Your task to perform on an android device: check battery use Image 0: 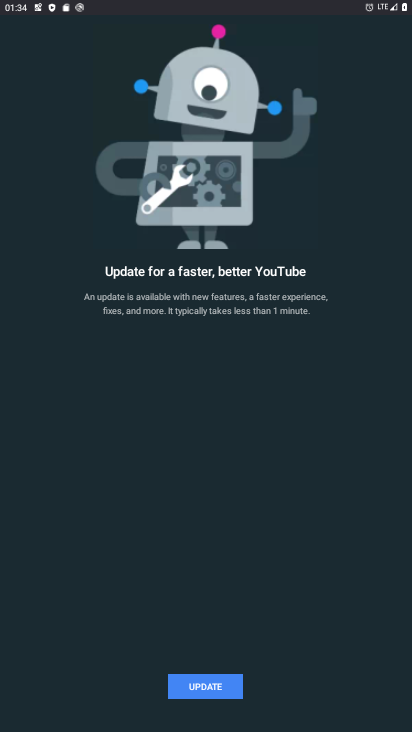
Step 0: press home button
Your task to perform on an android device: check battery use Image 1: 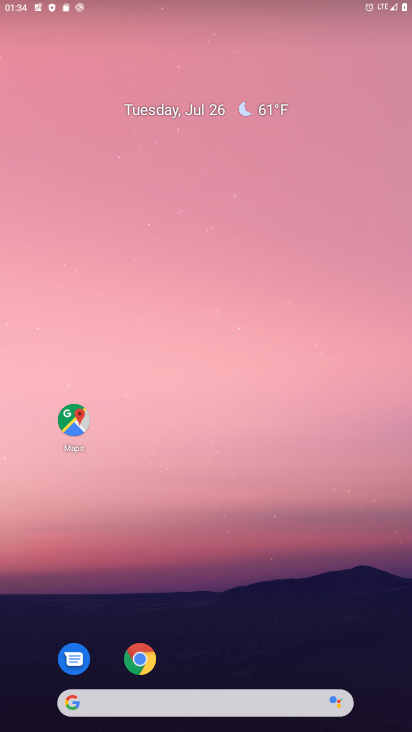
Step 1: drag from (311, 626) to (175, 23)
Your task to perform on an android device: check battery use Image 2: 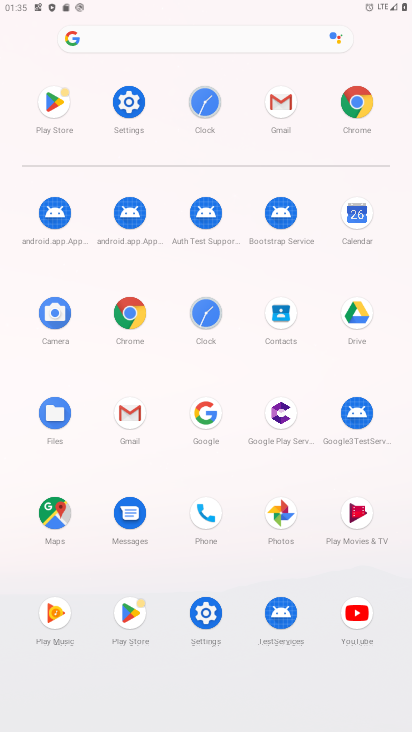
Step 2: click (125, 105)
Your task to perform on an android device: check battery use Image 3: 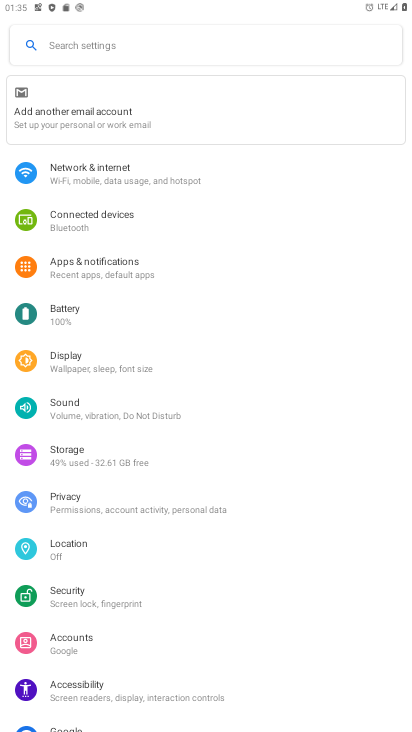
Step 3: click (85, 313)
Your task to perform on an android device: check battery use Image 4: 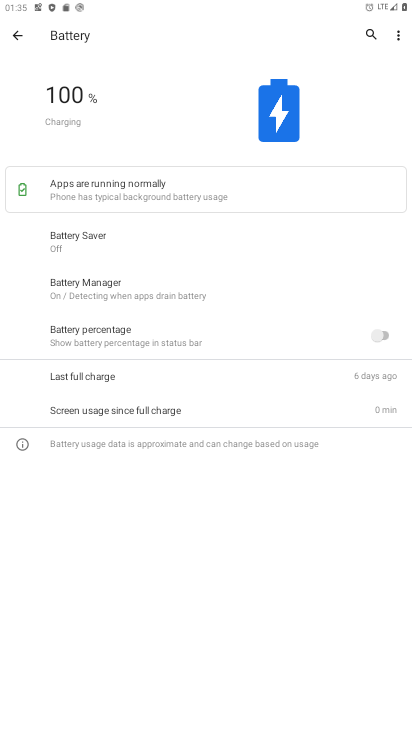
Step 4: click (398, 27)
Your task to perform on an android device: check battery use Image 5: 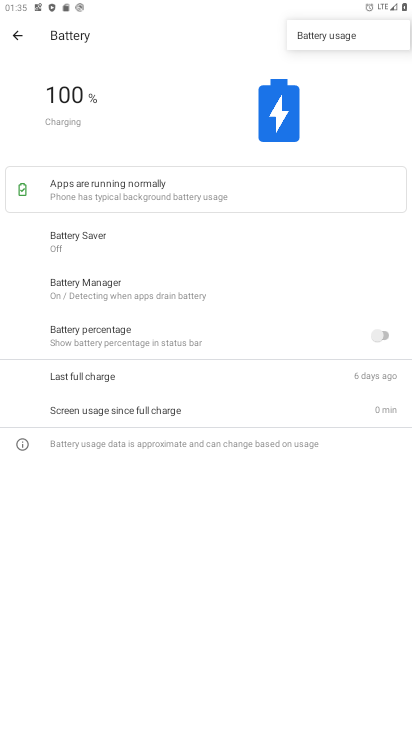
Step 5: click (354, 37)
Your task to perform on an android device: check battery use Image 6: 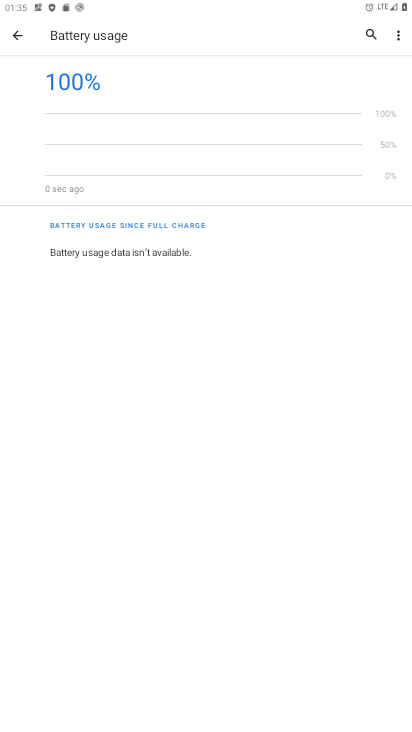
Step 6: task complete